Your task to perform on an android device: Show me the best 1080p monitor on Target.com Image 0: 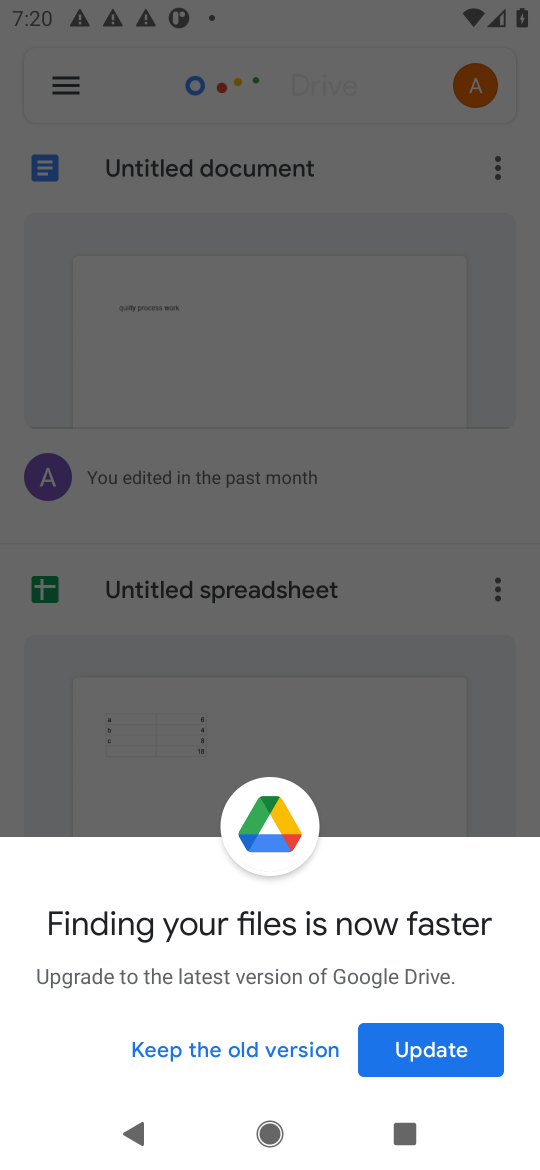
Step 0: press home button
Your task to perform on an android device: Show me the best 1080p monitor on Target.com Image 1: 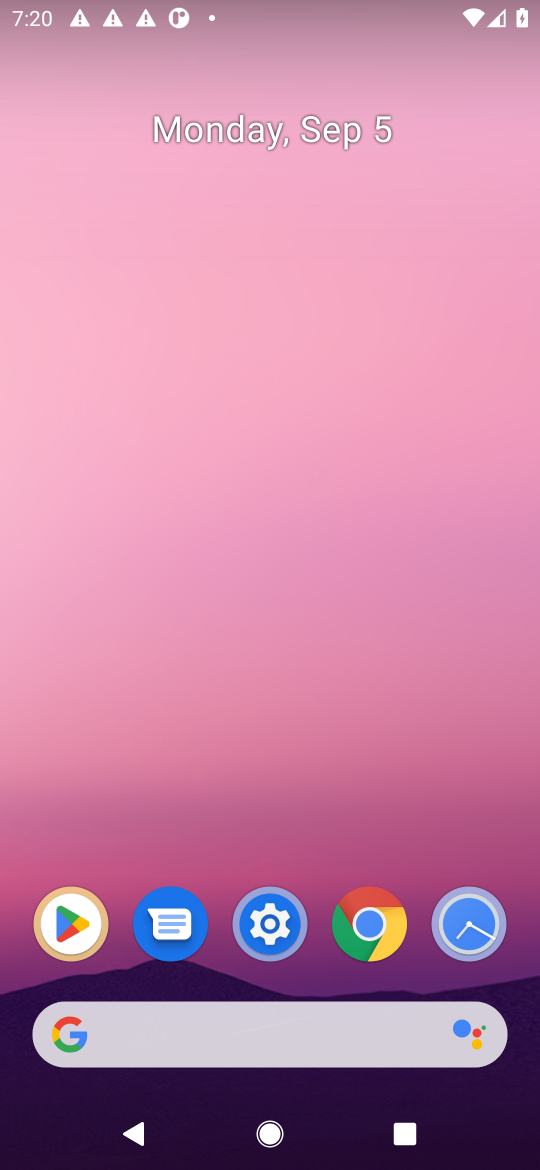
Step 1: click (335, 1036)
Your task to perform on an android device: Show me the best 1080p monitor on Target.com Image 2: 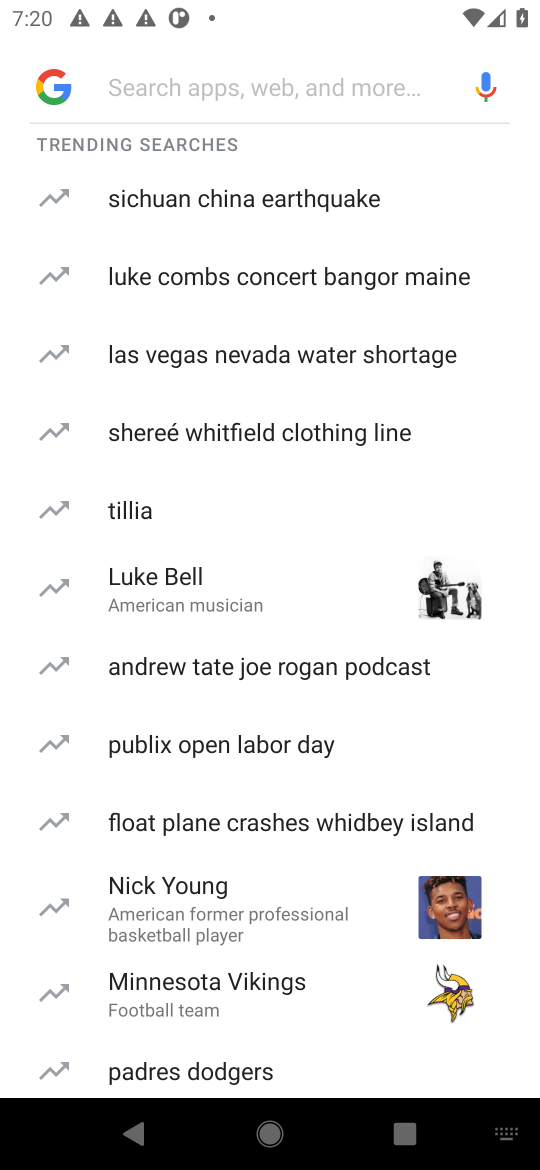
Step 2: press enter
Your task to perform on an android device: Show me the best 1080p monitor on Target.com Image 3: 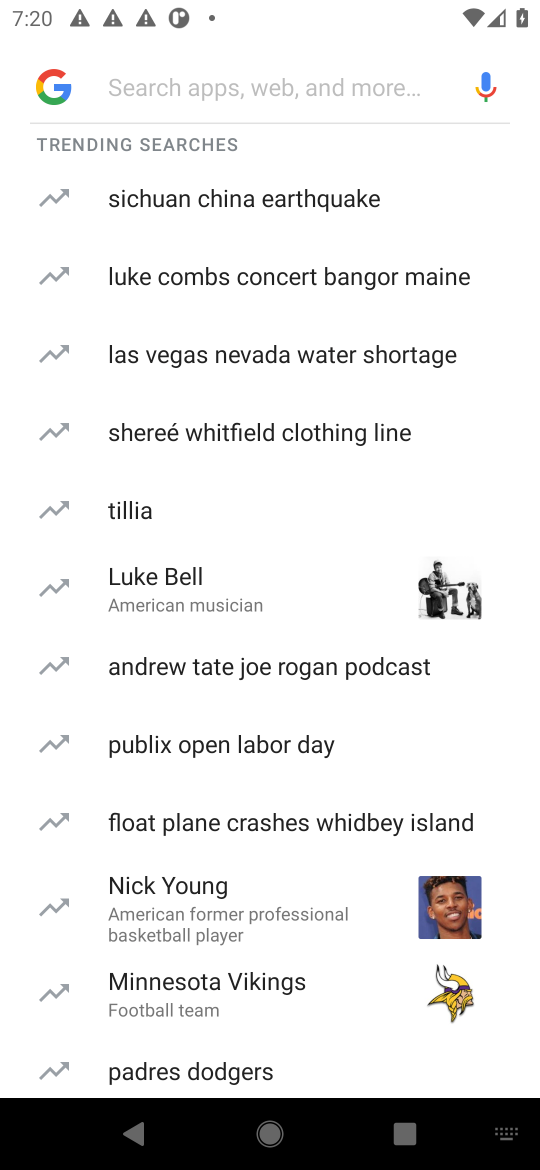
Step 3: type "target.com"
Your task to perform on an android device: Show me the best 1080p monitor on Target.com Image 4: 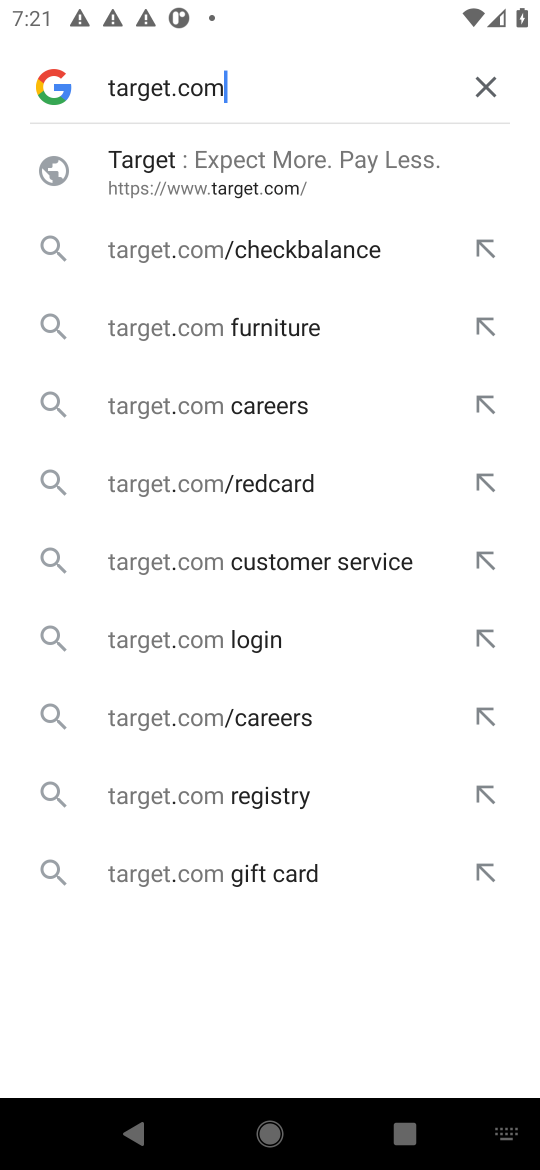
Step 4: click (329, 171)
Your task to perform on an android device: Show me the best 1080p monitor on Target.com Image 5: 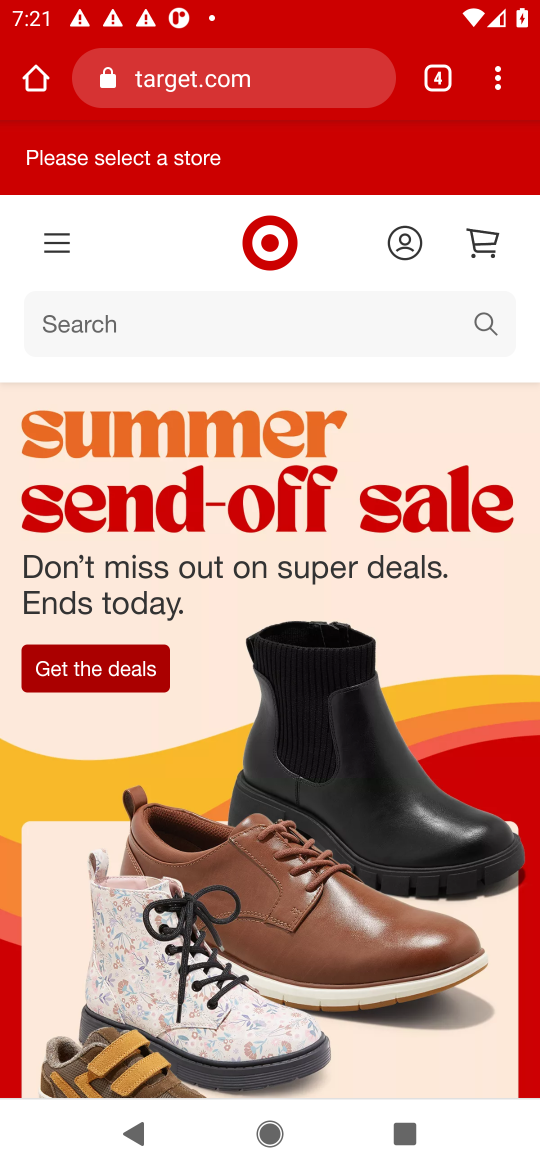
Step 5: click (181, 320)
Your task to perform on an android device: Show me the best 1080p monitor on Target.com Image 6: 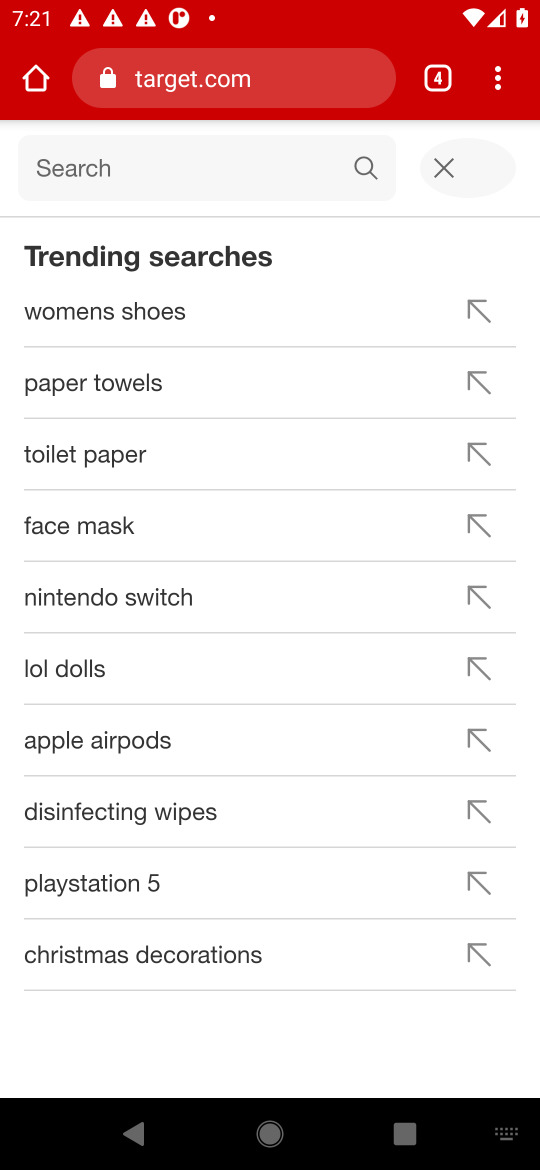
Step 6: type "1080p monitor "
Your task to perform on an android device: Show me the best 1080p monitor on Target.com Image 7: 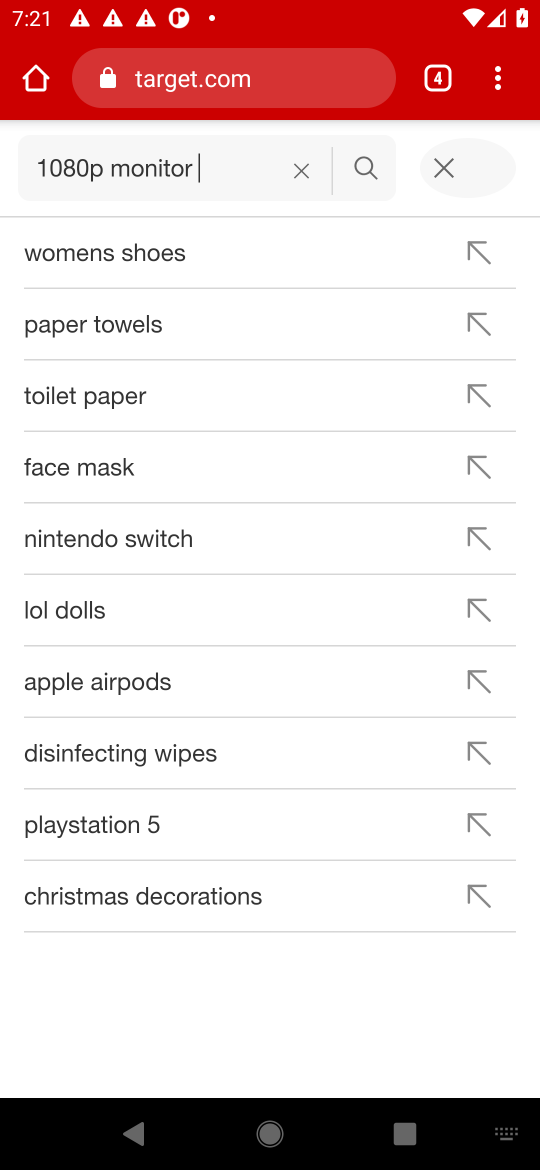
Step 7: press enter
Your task to perform on an android device: Show me the best 1080p monitor on Target.com Image 8: 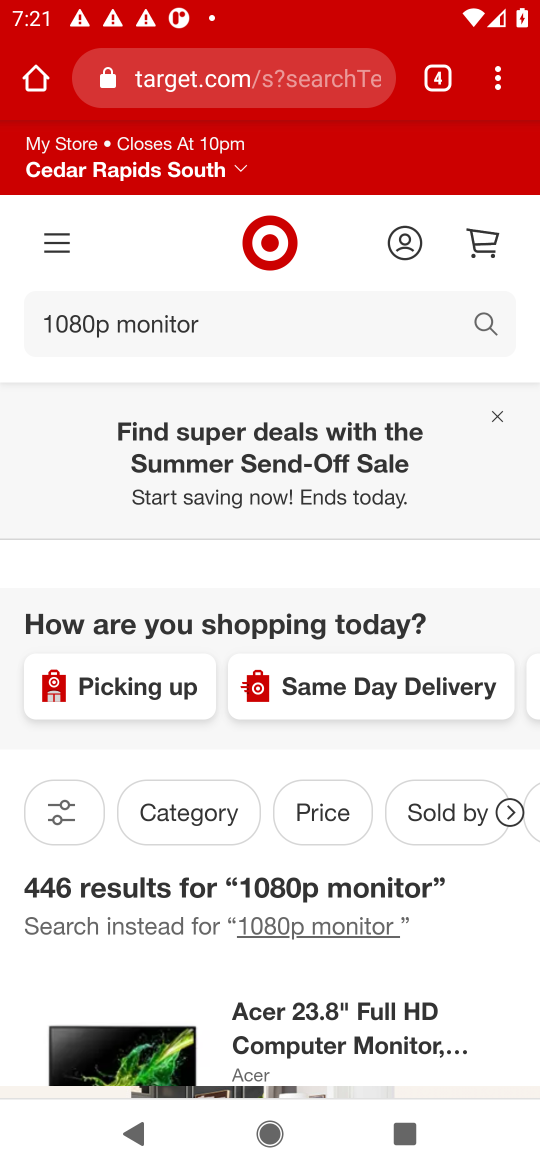
Step 8: task complete